Your task to perform on an android device: toggle location history Image 0: 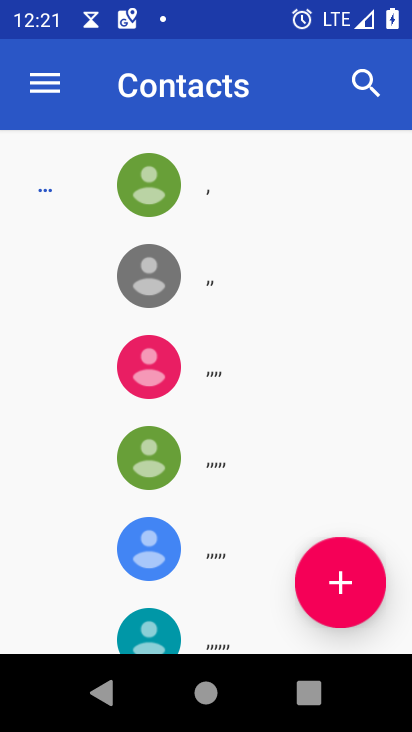
Step 0: press home button
Your task to perform on an android device: toggle location history Image 1: 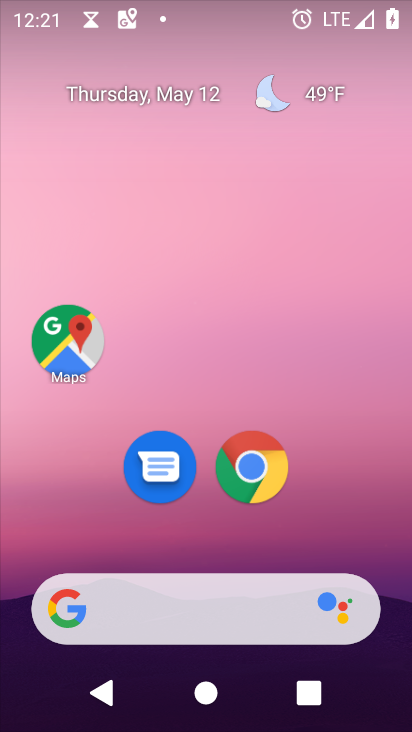
Step 1: drag from (240, 590) to (400, 117)
Your task to perform on an android device: toggle location history Image 2: 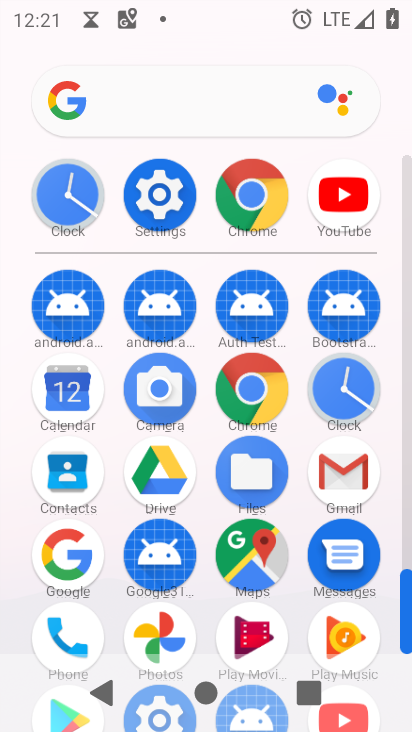
Step 2: click (267, 568)
Your task to perform on an android device: toggle location history Image 3: 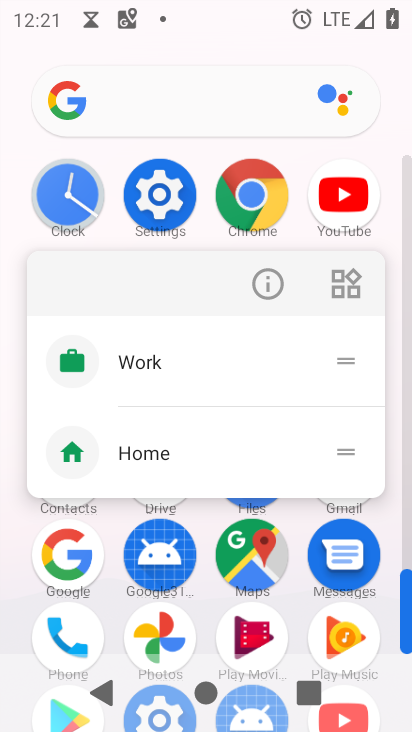
Step 3: click (256, 568)
Your task to perform on an android device: toggle location history Image 4: 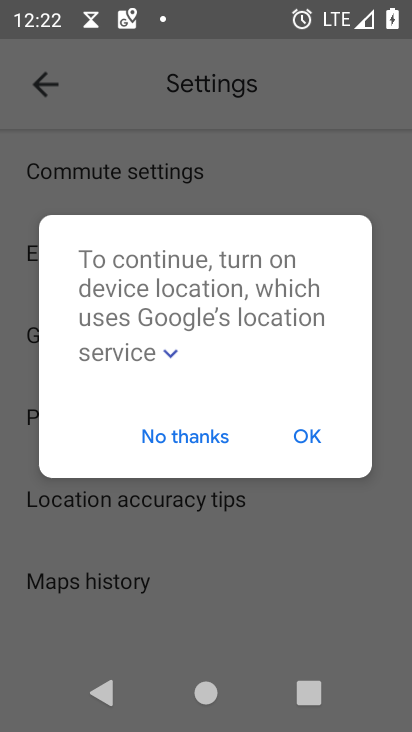
Step 4: click (298, 431)
Your task to perform on an android device: toggle location history Image 5: 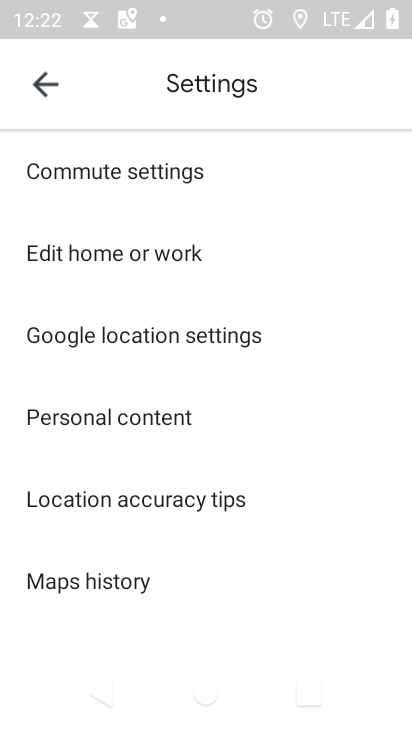
Step 5: click (47, 87)
Your task to perform on an android device: toggle location history Image 6: 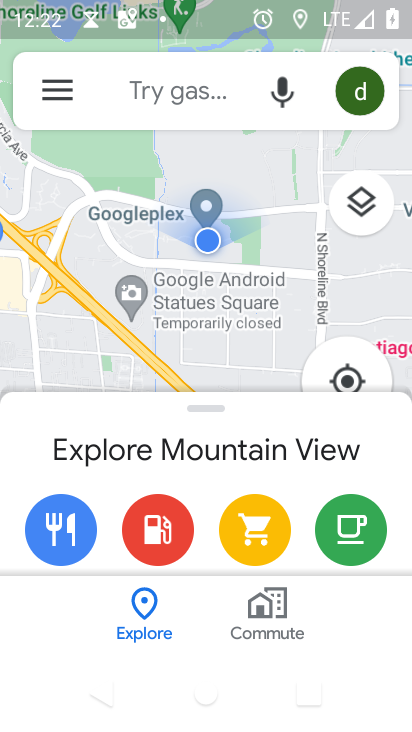
Step 6: click (54, 83)
Your task to perform on an android device: toggle location history Image 7: 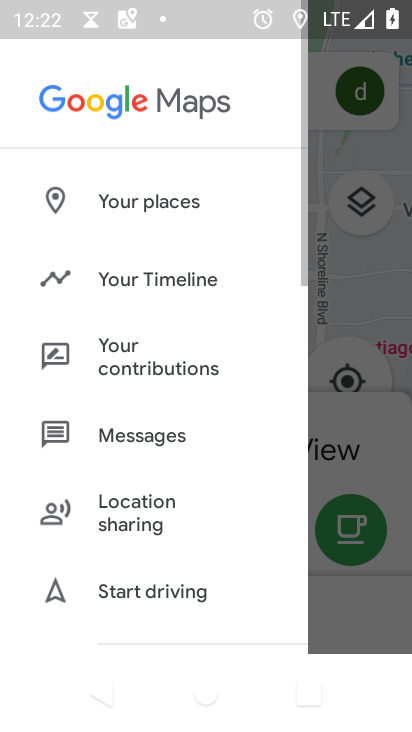
Step 7: click (149, 279)
Your task to perform on an android device: toggle location history Image 8: 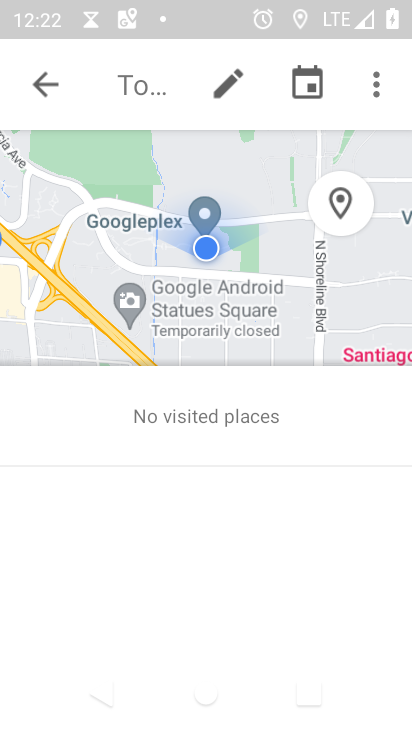
Step 8: click (385, 89)
Your task to perform on an android device: toggle location history Image 9: 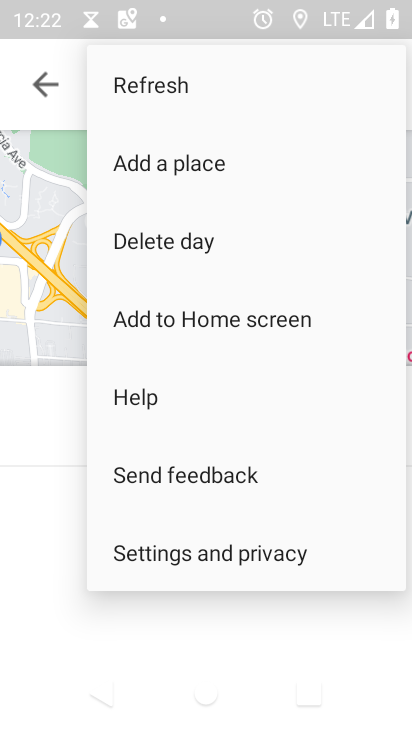
Step 9: click (172, 558)
Your task to perform on an android device: toggle location history Image 10: 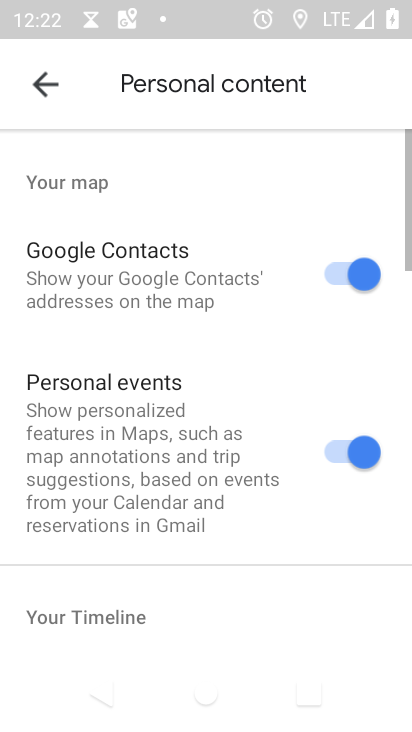
Step 10: drag from (163, 591) to (304, 102)
Your task to perform on an android device: toggle location history Image 11: 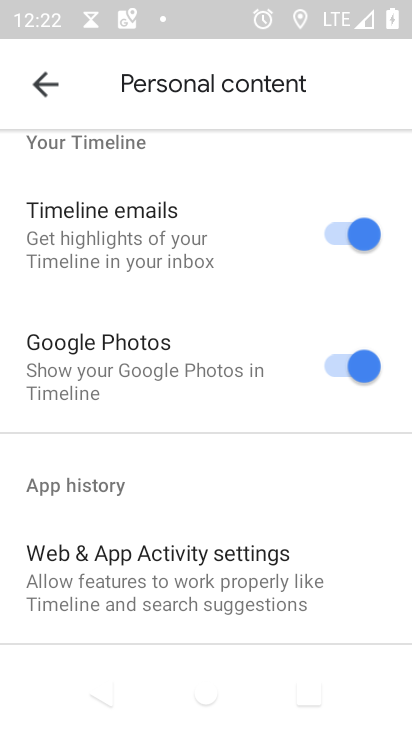
Step 11: drag from (176, 590) to (312, 109)
Your task to perform on an android device: toggle location history Image 12: 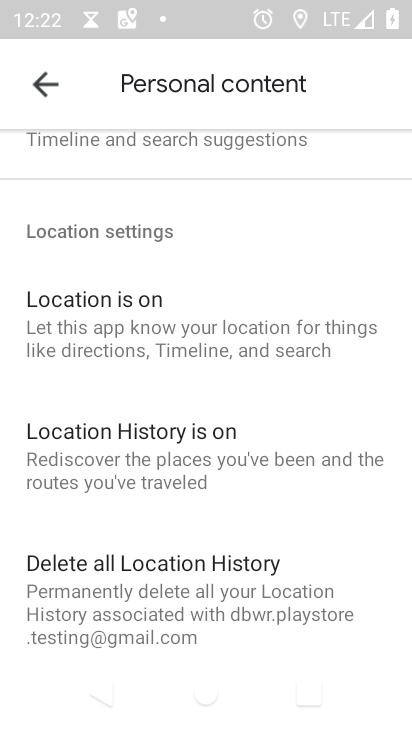
Step 12: drag from (178, 582) to (326, 223)
Your task to perform on an android device: toggle location history Image 13: 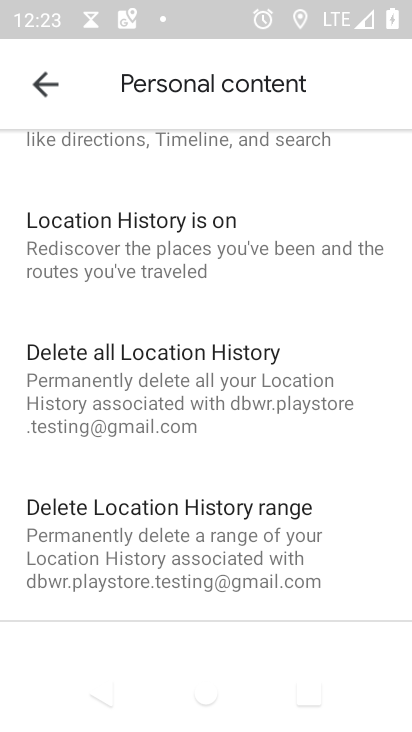
Step 13: click (209, 383)
Your task to perform on an android device: toggle location history Image 14: 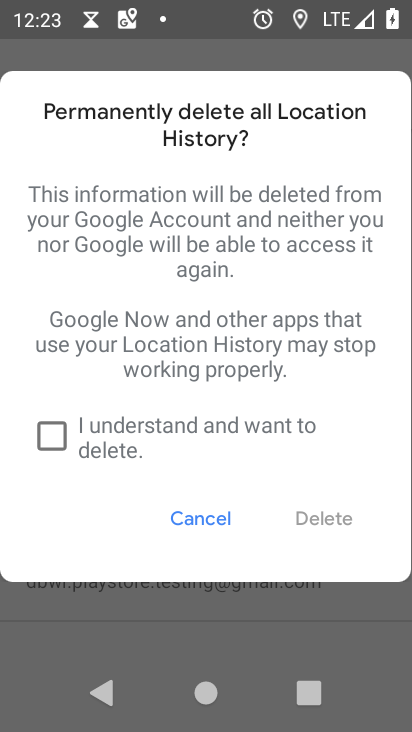
Step 14: click (211, 520)
Your task to perform on an android device: toggle location history Image 15: 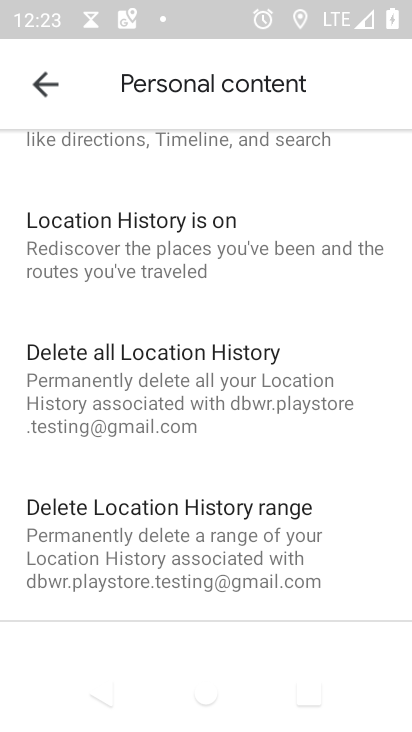
Step 15: click (177, 226)
Your task to perform on an android device: toggle location history Image 16: 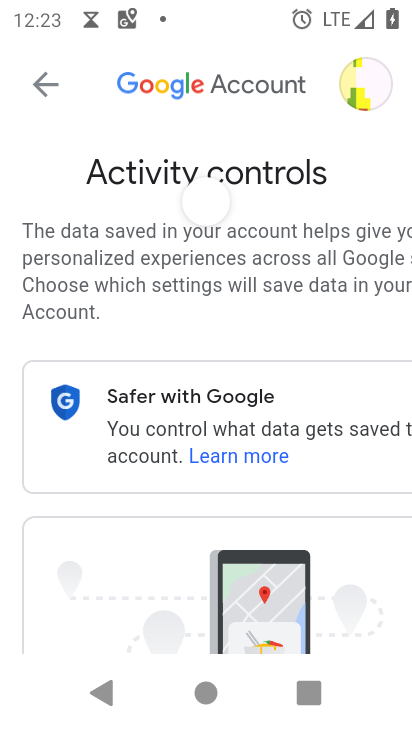
Step 16: drag from (178, 581) to (329, 159)
Your task to perform on an android device: toggle location history Image 17: 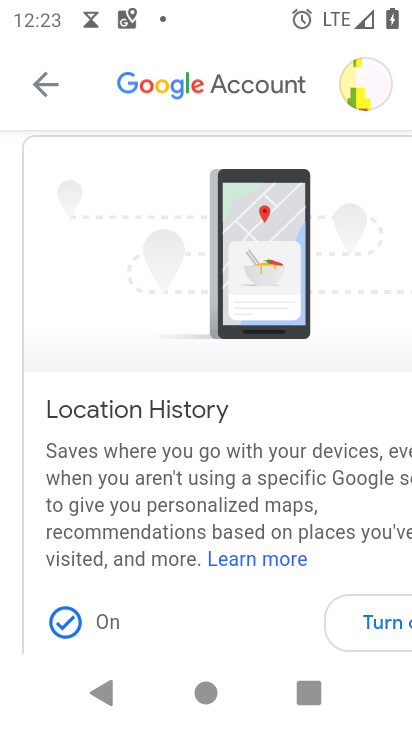
Step 17: click (360, 621)
Your task to perform on an android device: toggle location history Image 18: 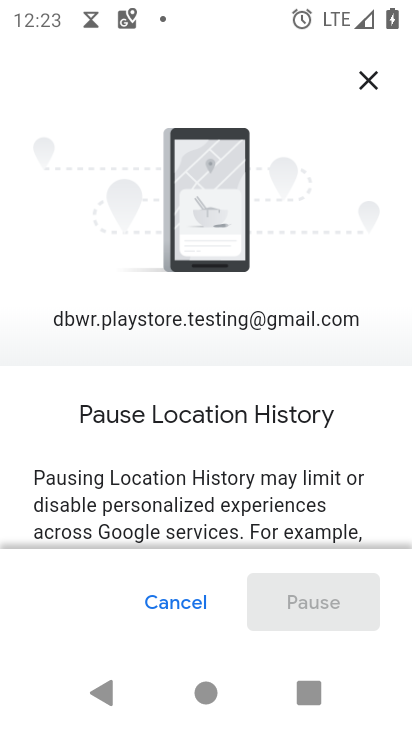
Step 18: drag from (325, 472) to (404, 133)
Your task to perform on an android device: toggle location history Image 19: 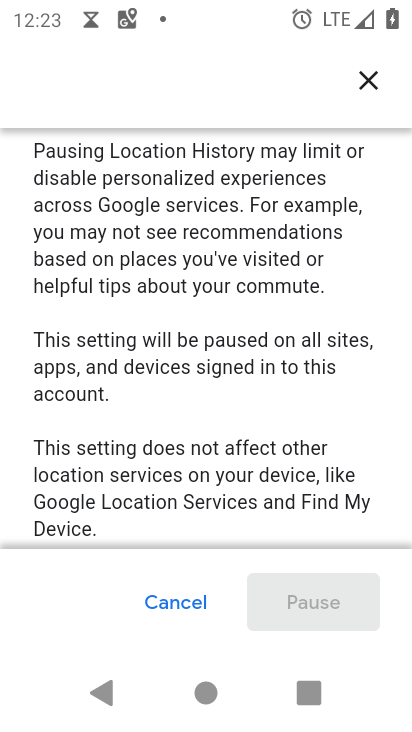
Step 19: drag from (329, 504) to (404, 130)
Your task to perform on an android device: toggle location history Image 20: 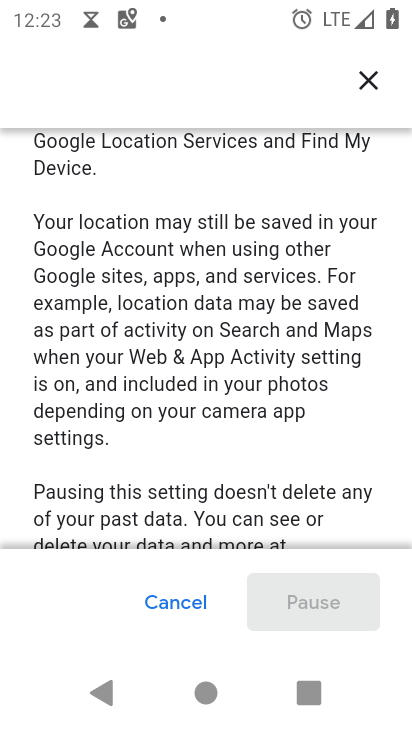
Step 20: drag from (309, 471) to (410, 161)
Your task to perform on an android device: toggle location history Image 21: 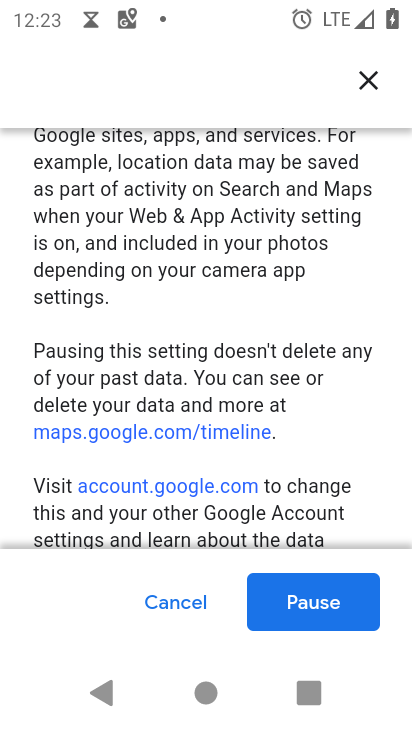
Step 21: click (315, 608)
Your task to perform on an android device: toggle location history Image 22: 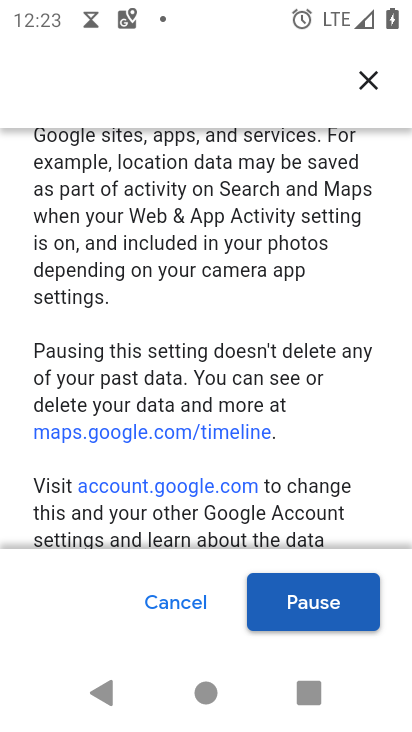
Step 22: click (316, 605)
Your task to perform on an android device: toggle location history Image 23: 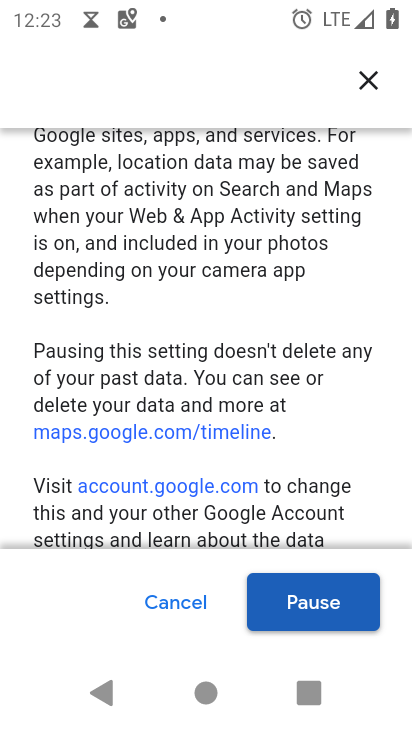
Step 23: click (336, 592)
Your task to perform on an android device: toggle location history Image 24: 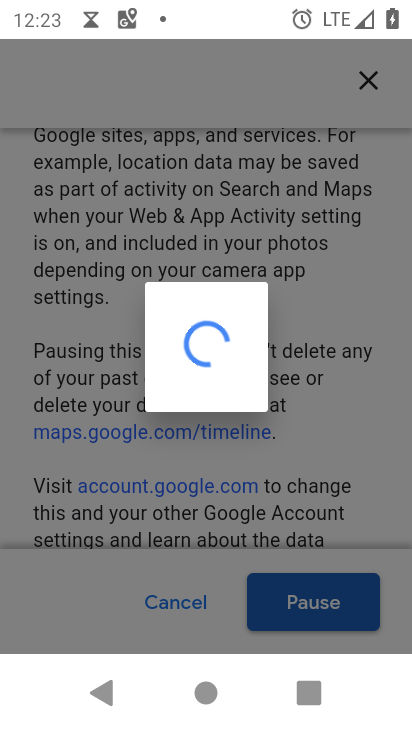
Step 24: click (327, 605)
Your task to perform on an android device: toggle location history Image 25: 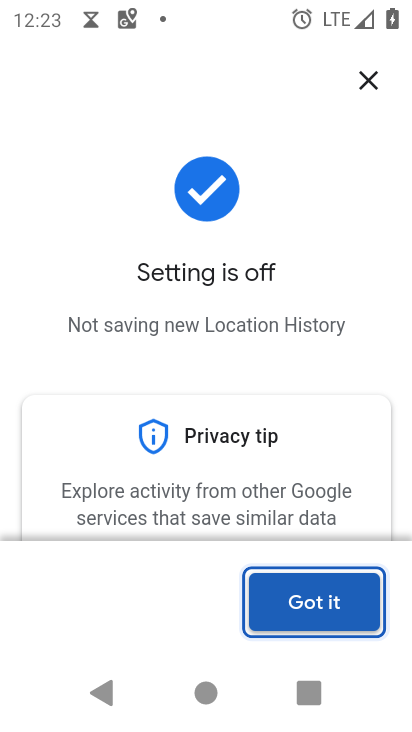
Step 25: task complete